Your task to perform on an android device: turn off airplane mode Image 0: 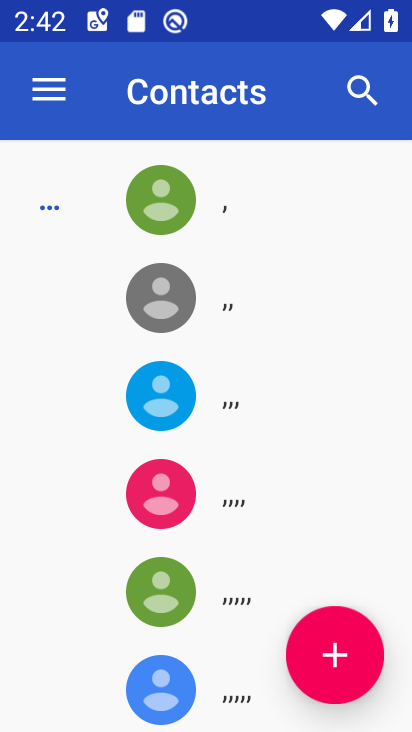
Step 0: press home button
Your task to perform on an android device: turn off airplane mode Image 1: 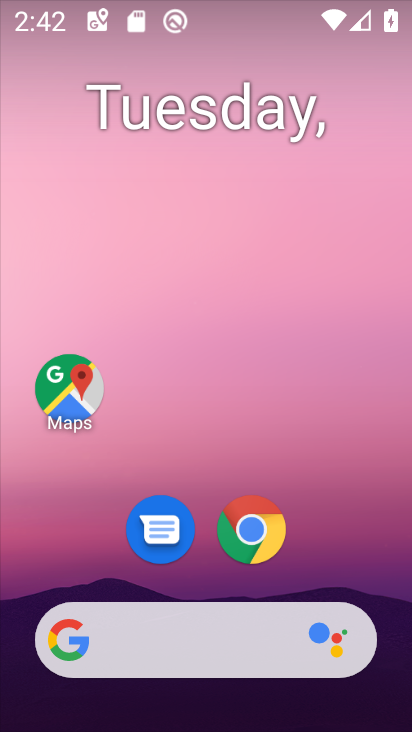
Step 1: drag from (304, 582) to (286, 291)
Your task to perform on an android device: turn off airplane mode Image 2: 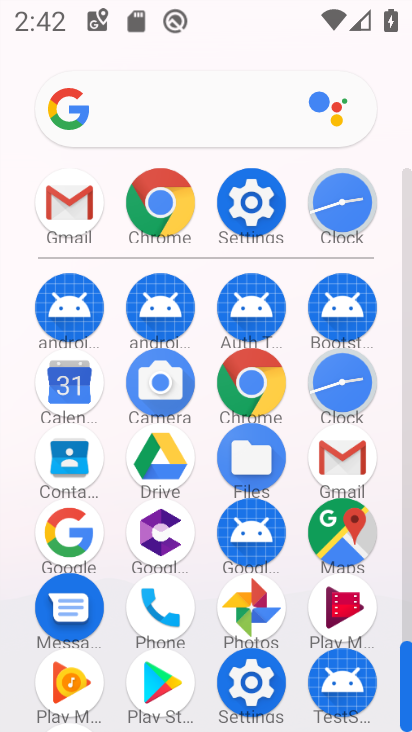
Step 2: click (240, 196)
Your task to perform on an android device: turn off airplane mode Image 3: 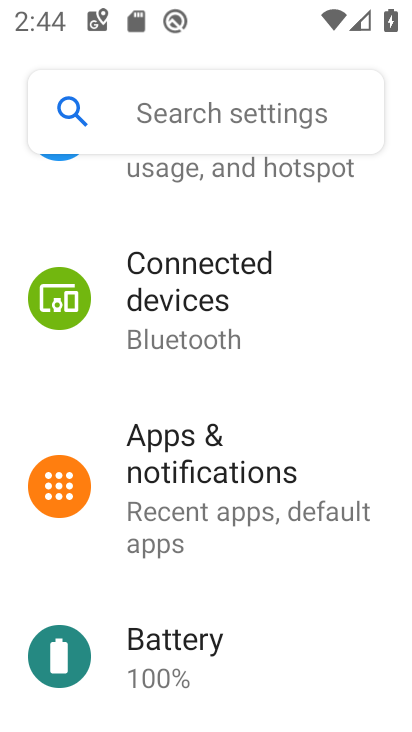
Step 3: drag from (249, 208) to (189, 564)
Your task to perform on an android device: turn off airplane mode Image 4: 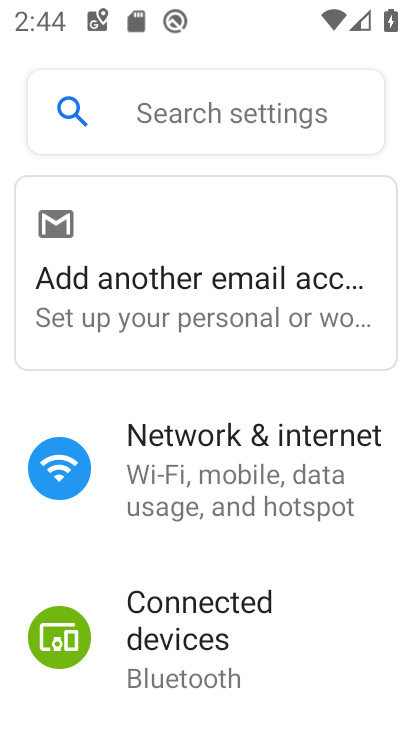
Step 4: click (159, 433)
Your task to perform on an android device: turn off airplane mode Image 5: 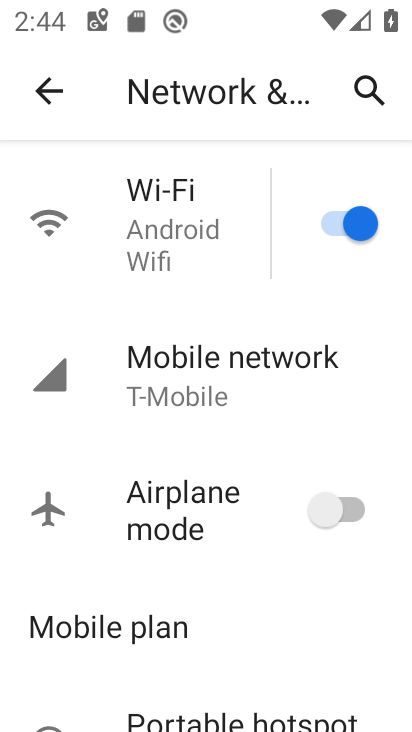
Step 5: task complete